Your task to perform on an android device: see tabs open on other devices in the chrome app Image 0: 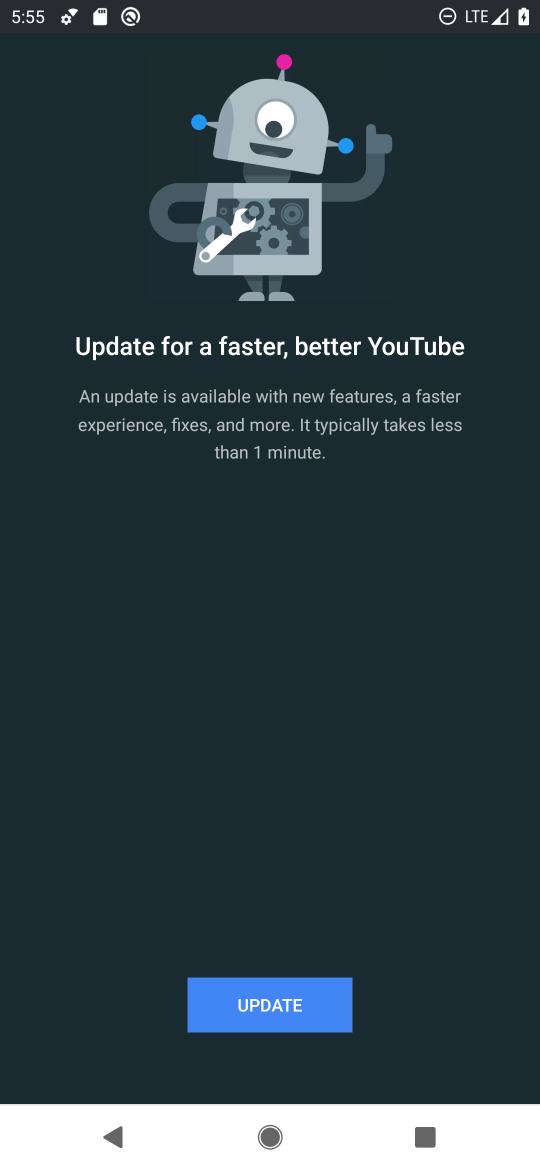
Step 0: press home button
Your task to perform on an android device: see tabs open on other devices in the chrome app Image 1: 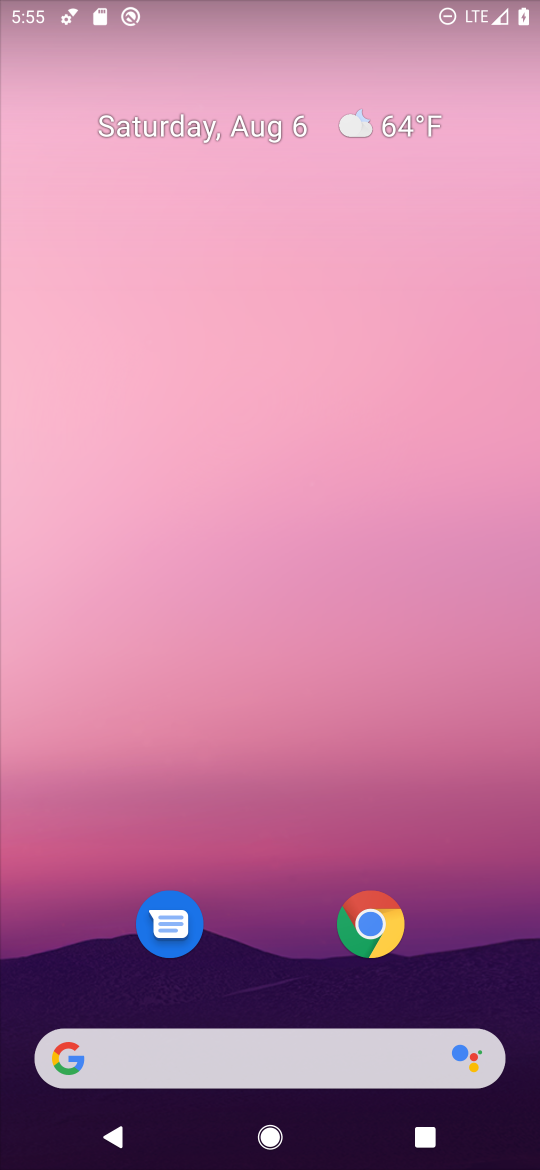
Step 1: drag from (271, 894) to (174, 175)
Your task to perform on an android device: see tabs open on other devices in the chrome app Image 2: 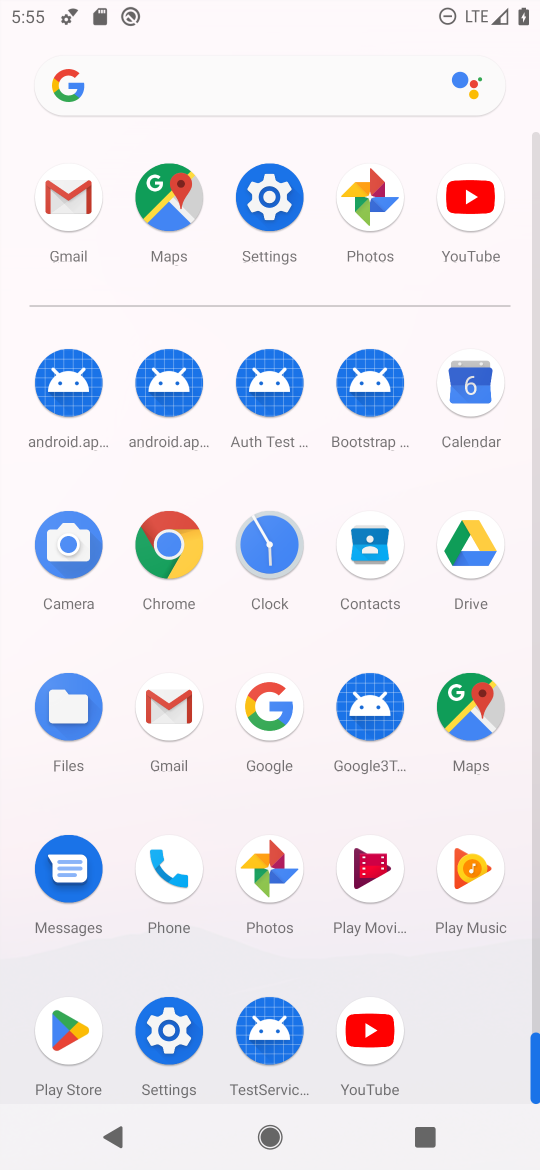
Step 2: click (169, 545)
Your task to perform on an android device: see tabs open on other devices in the chrome app Image 3: 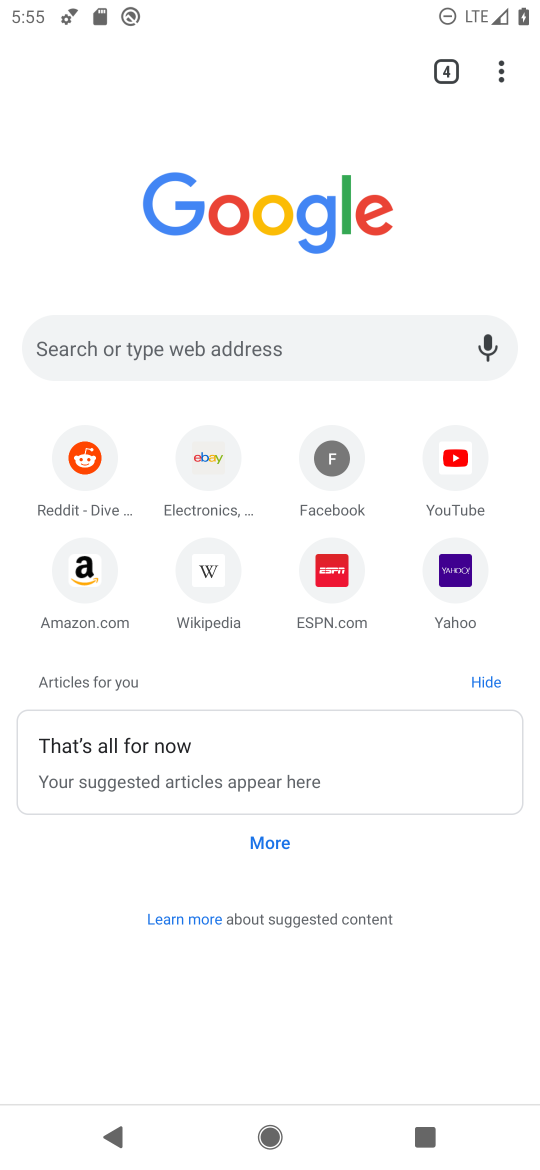
Step 3: click (505, 65)
Your task to perform on an android device: see tabs open on other devices in the chrome app Image 4: 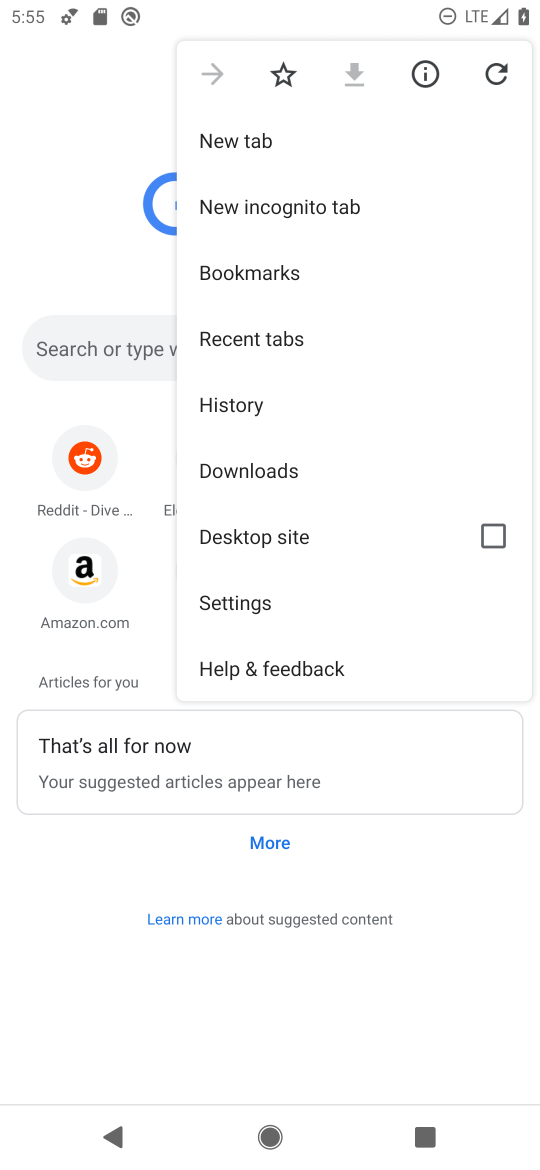
Step 4: click (283, 328)
Your task to perform on an android device: see tabs open on other devices in the chrome app Image 5: 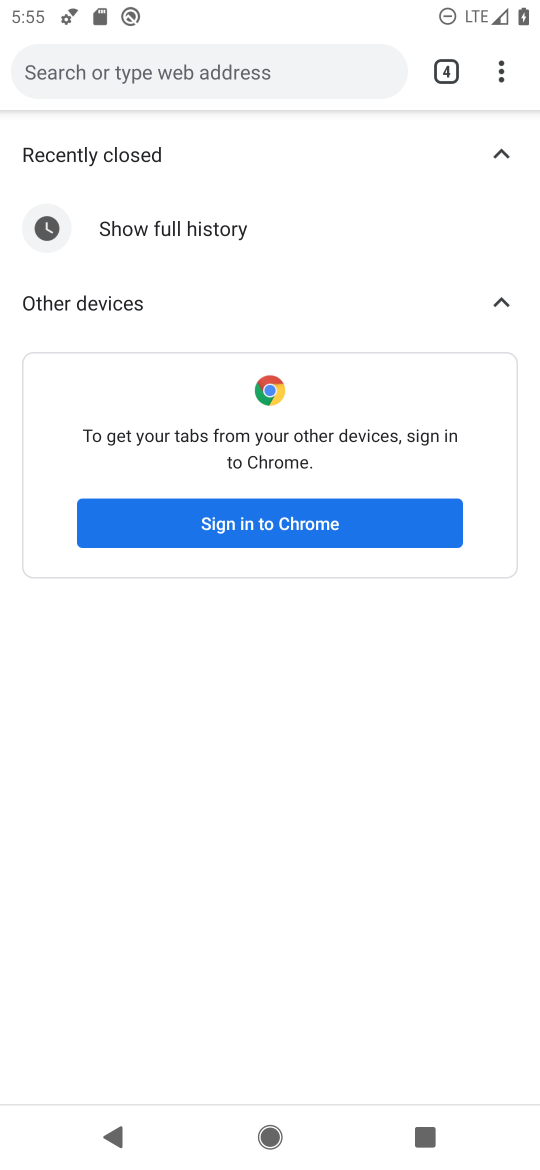
Step 5: task complete